Your task to perform on an android device: move an email to a new category in the gmail app Image 0: 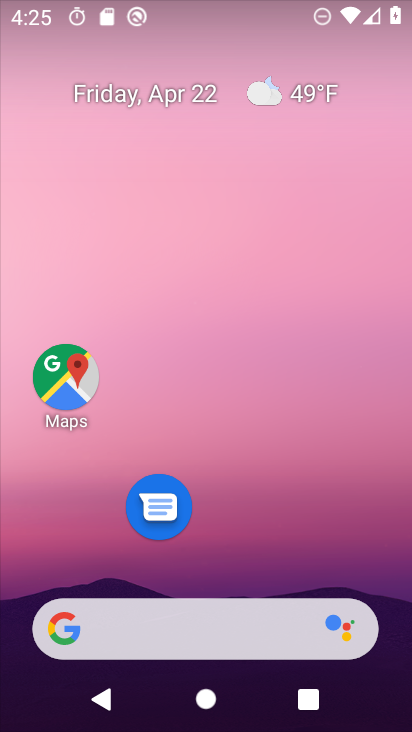
Step 0: drag from (215, 515) to (305, 96)
Your task to perform on an android device: move an email to a new category in the gmail app Image 1: 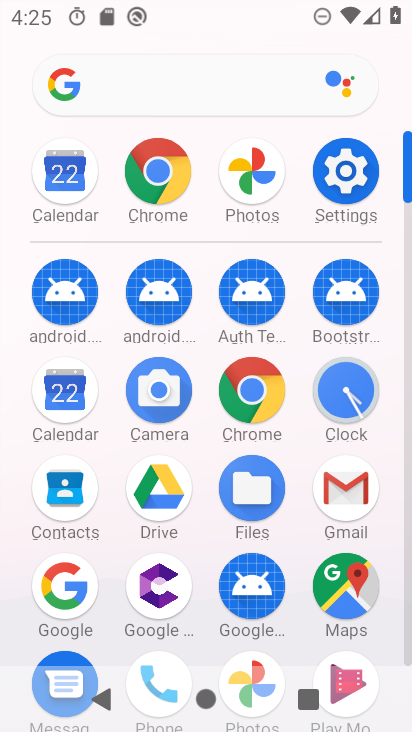
Step 1: click (336, 484)
Your task to perform on an android device: move an email to a new category in the gmail app Image 2: 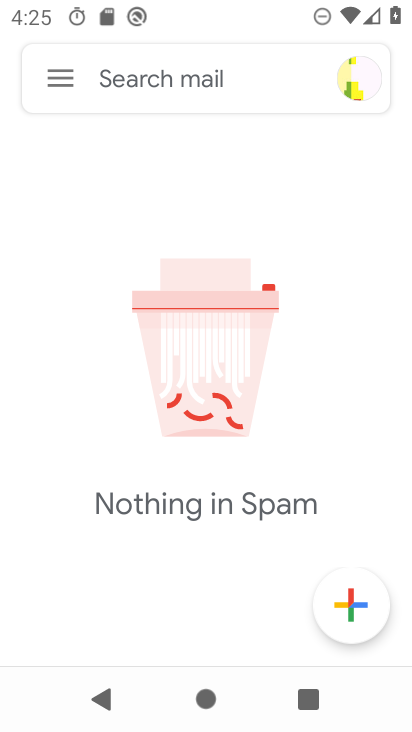
Step 2: click (52, 84)
Your task to perform on an android device: move an email to a new category in the gmail app Image 3: 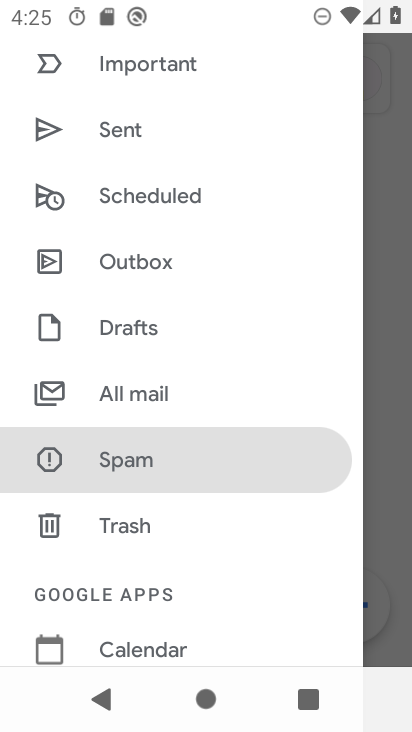
Step 3: click (135, 392)
Your task to perform on an android device: move an email to a new category in the gmail app Image 4: 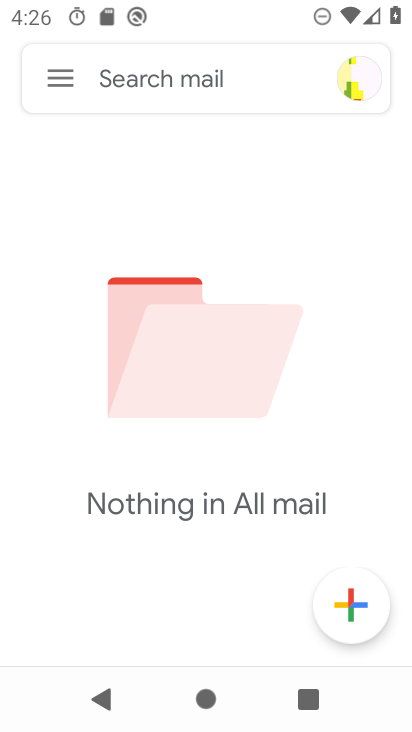
Step 4: task complete